Your task to perform on an android device: Is it going to rain today? Image 0: 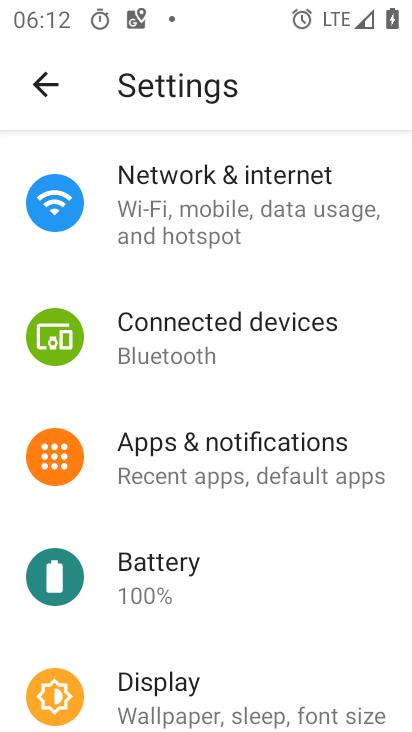
Step 0: press home button
Your task to perform on an android device: Is it going to rain today? Image 1: 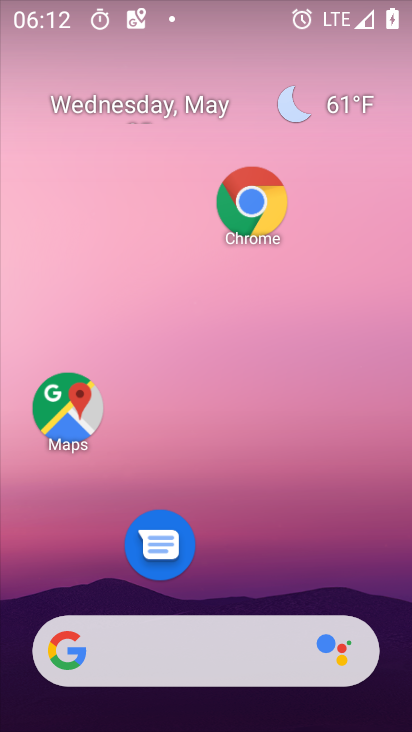
Step 1: drag from (259, 621) to (244, 265)
Your task to perform on an android device: Is it going to rain today? Image 2: 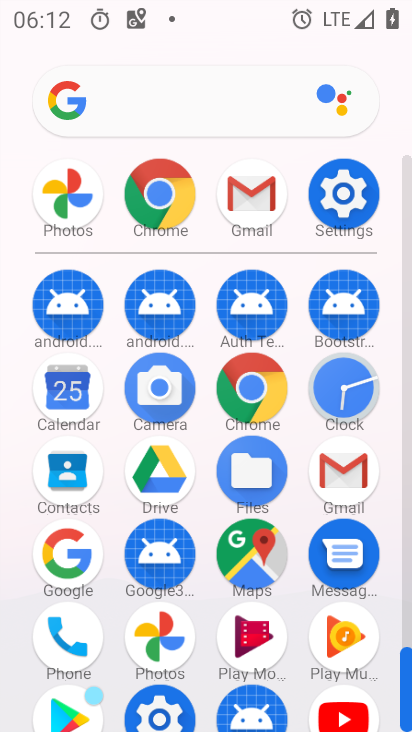
Step 2: click (76, 548)
Your task to perform on an android device: Is it going to rain today? Image 3: 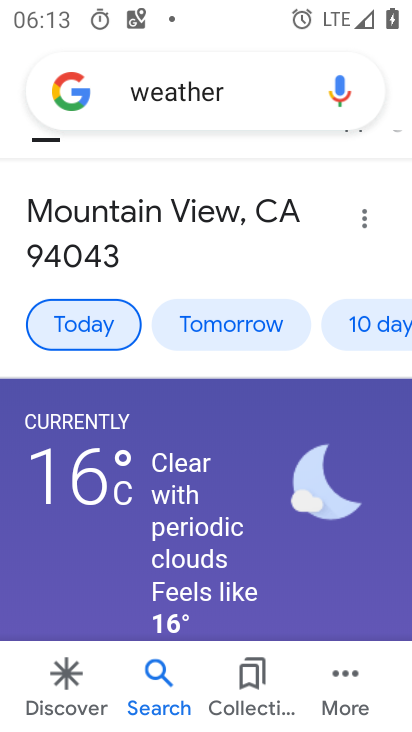
Step 3: click (248, 88)
Your task to perform on an android device: Is it going to rain today? Image 4: 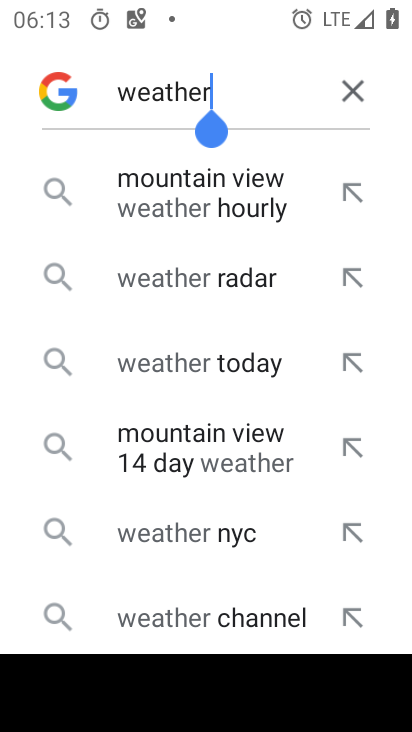
Step 4: click (350, 79)
Your task to perform on an android device: Is it going to rain today? Image 5: 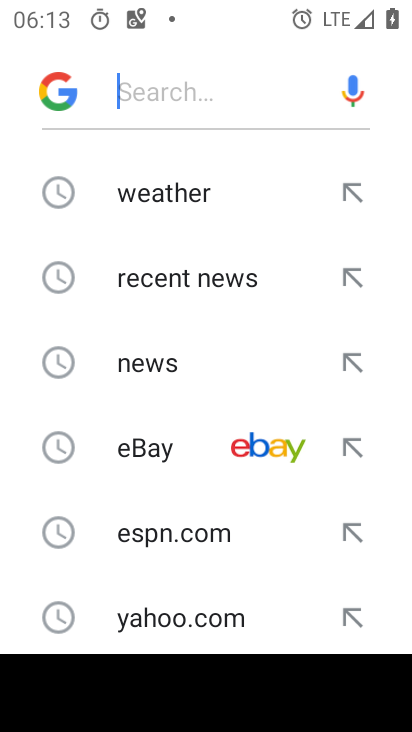
Step 5: type "is it going rain today?"
Your task to perform on an android device: Is it going to rain today? Image 6: 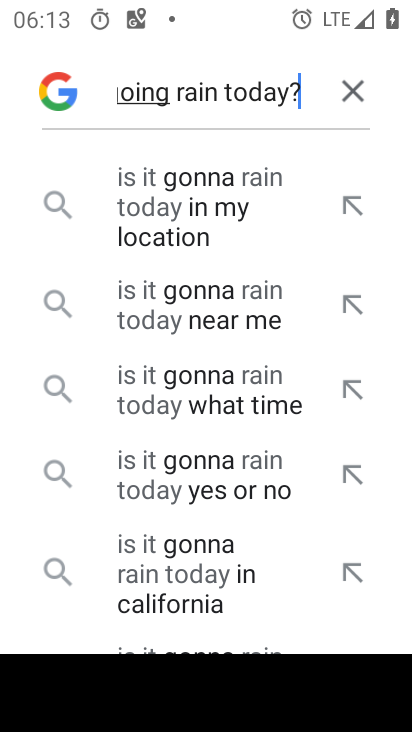
Step 6: click (147, 192)
Your task to perform on an android device: Is it going to rain today? Image 7: 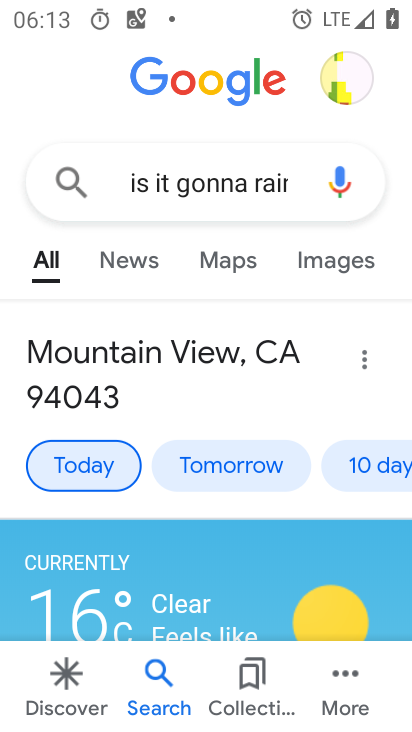
Step 7: task complete